Your task to perform on an android device: turn off location Image 0: 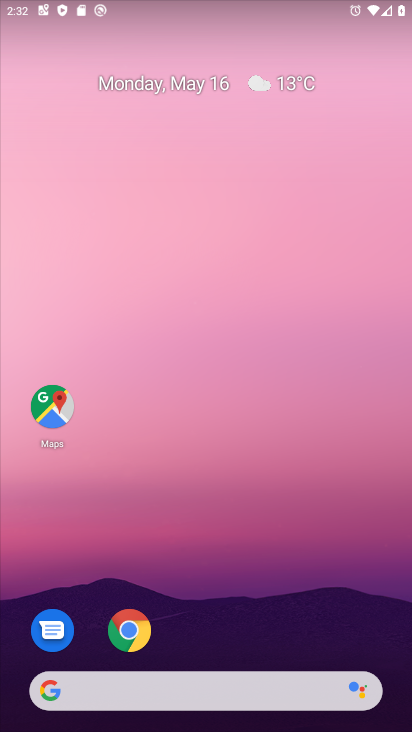
Step 0: drag from (294, 619) to (325, 115)
Your task to perform on an android device: turn off location Image 1: 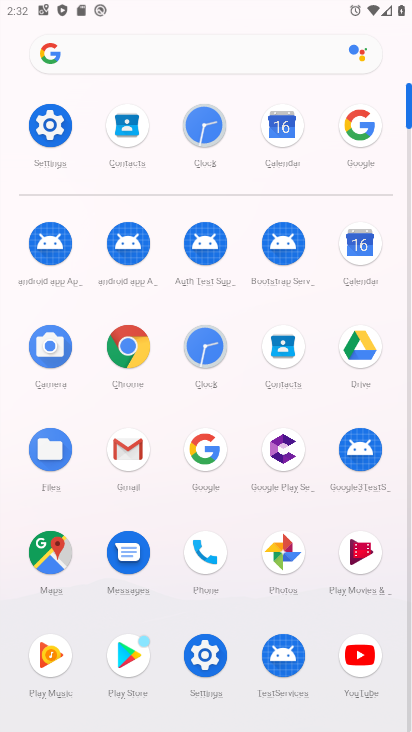
Step 1: click (46, 132)
Your task to perform on an android device: turn off location Image 2: 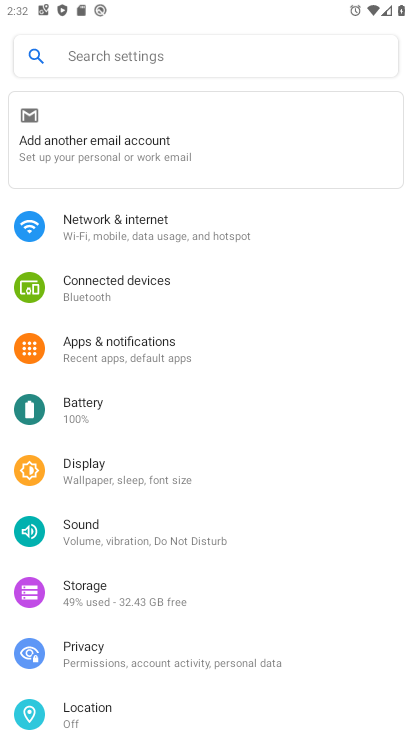
Step 2: click (150, 232)
Your task to perform on an android device: turn off location Image 3: 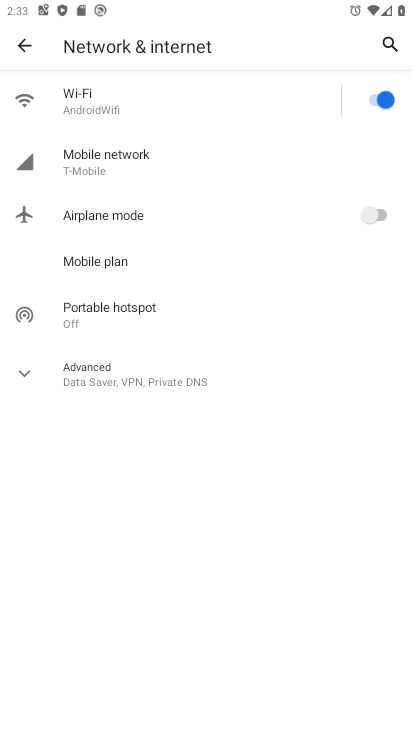
Step 3: click (28, 48)
Your task to perform on an android device: turn off location Image 4: 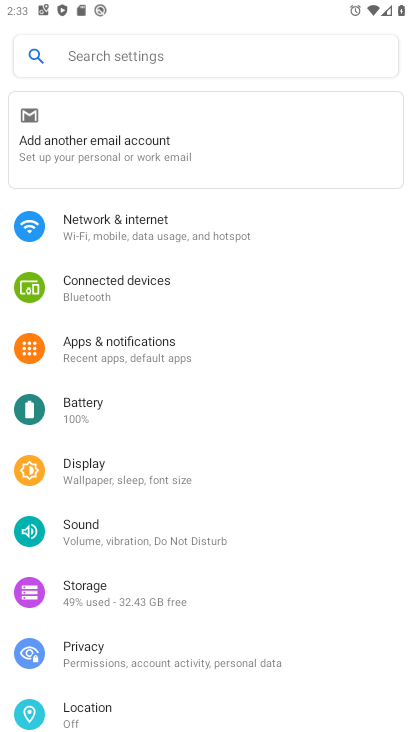
Step 4: click (135, 707)
Your task to perform on an android device: turn off location Image 5: 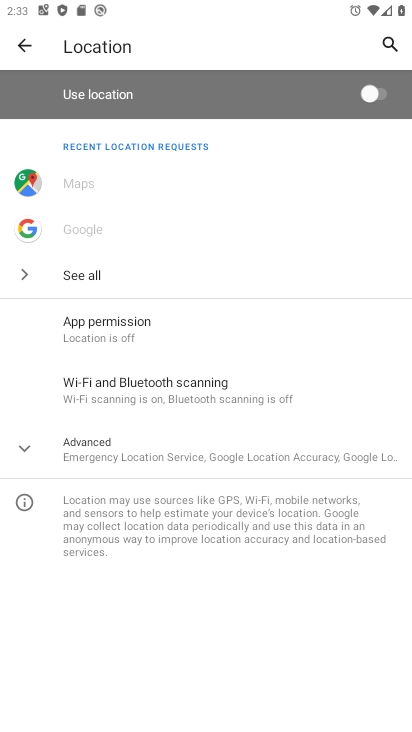
Step 5: task complete